Your task to perform on an android device: Check the news Image 0: 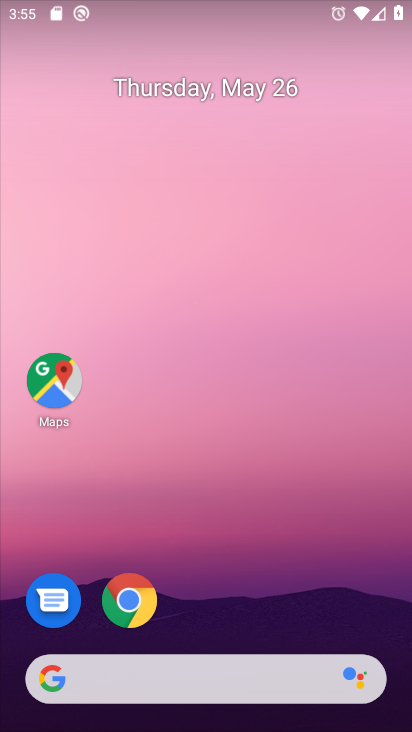
Step 0: drag from (212, 562) to (272, 132)
Your task to perform on an android device: Check the news Image 1: 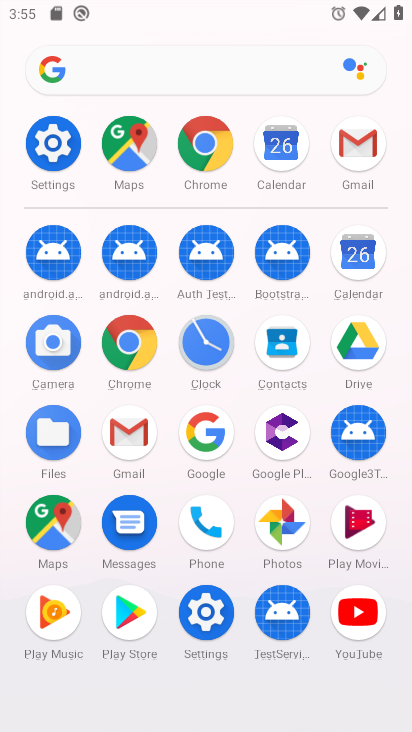
Step 1: click (188, 72)
Your task to perform on an android device: Check the news Image 2: 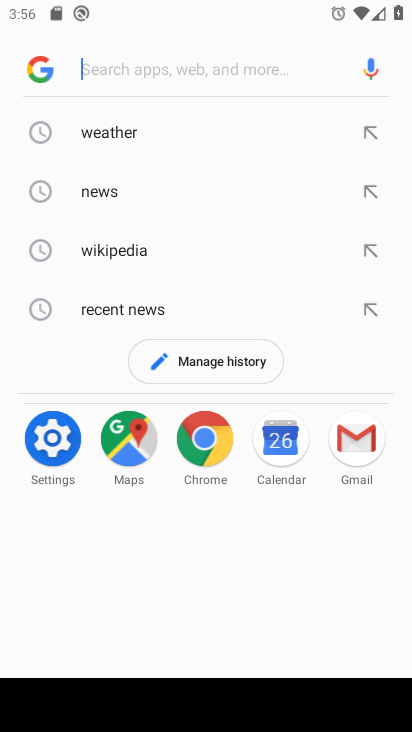
Step 2: click (114, 196)
Your task to perform on an android device: Check the news Image 3: 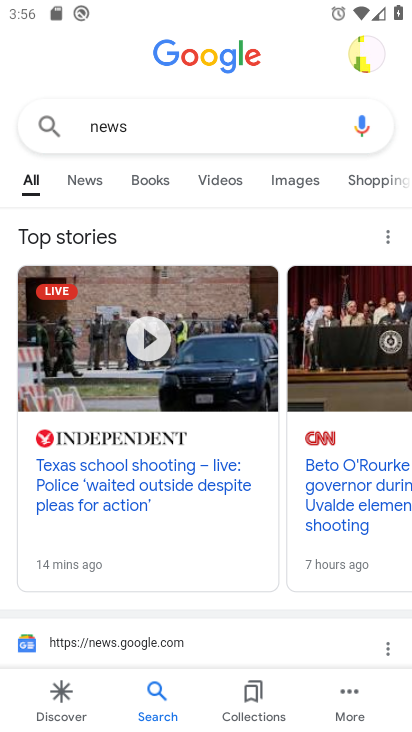
Step 3: task complete